Your task to perform on an android device: Open display settings Image 0: 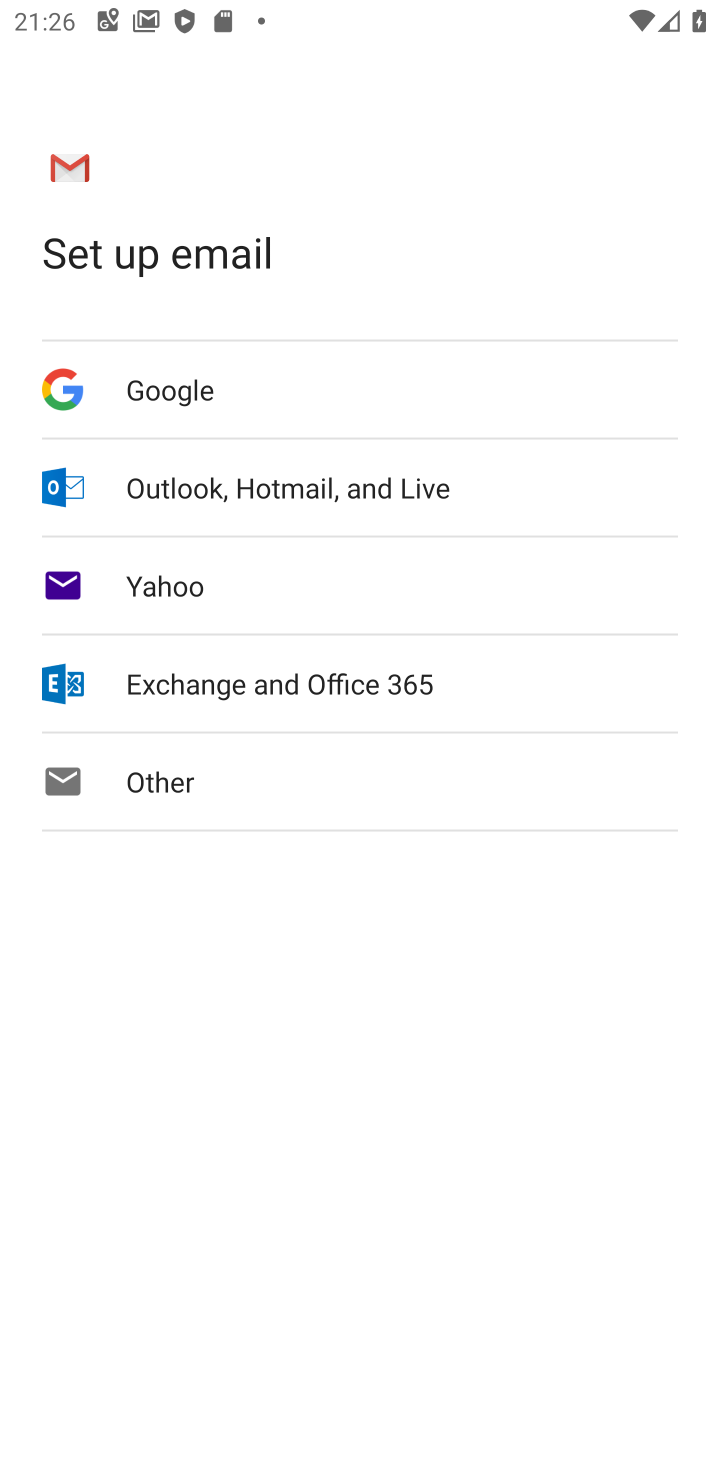
Step 0: press home button
Your task to perform on an android device: Open display settings Image 1: 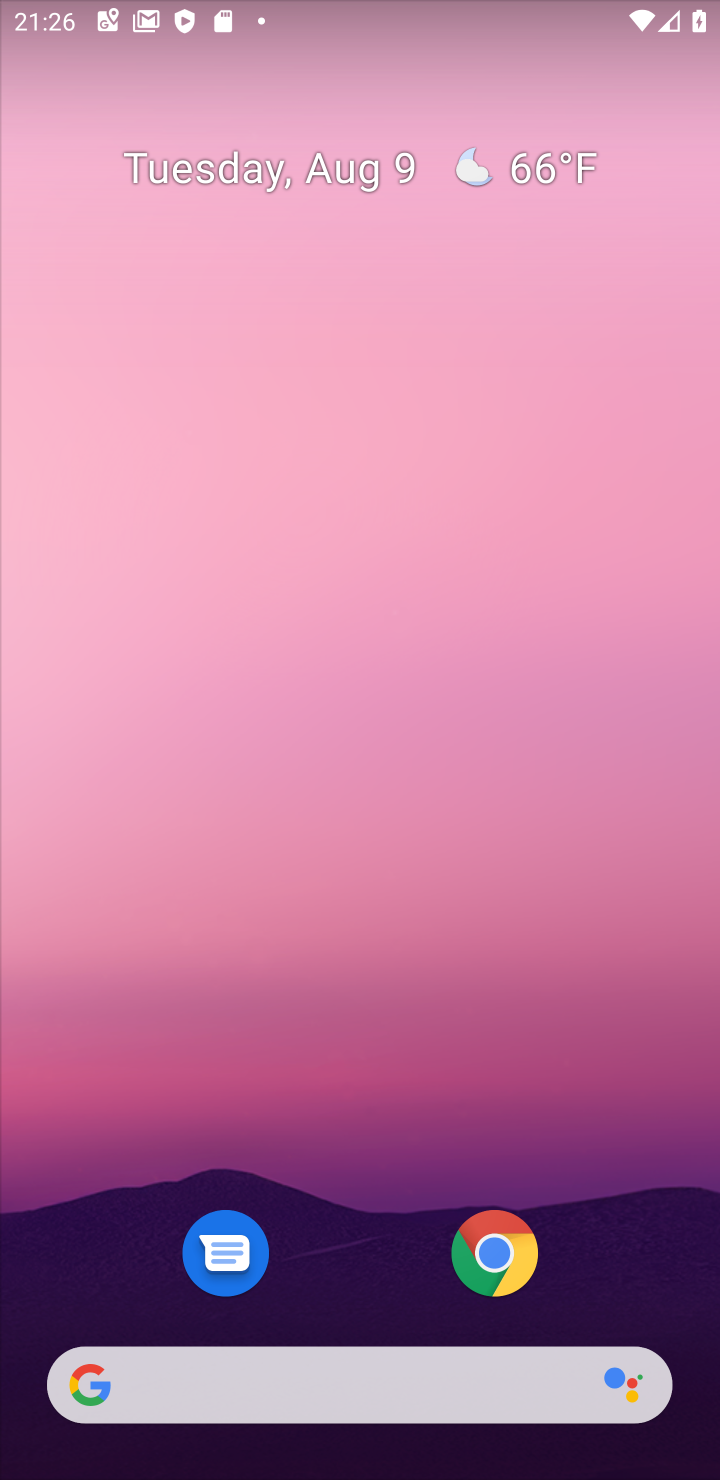
Step 1: drag from (321, 1204) to (438, 113)
Your task to perform on an android device: Open display settings Image 2: 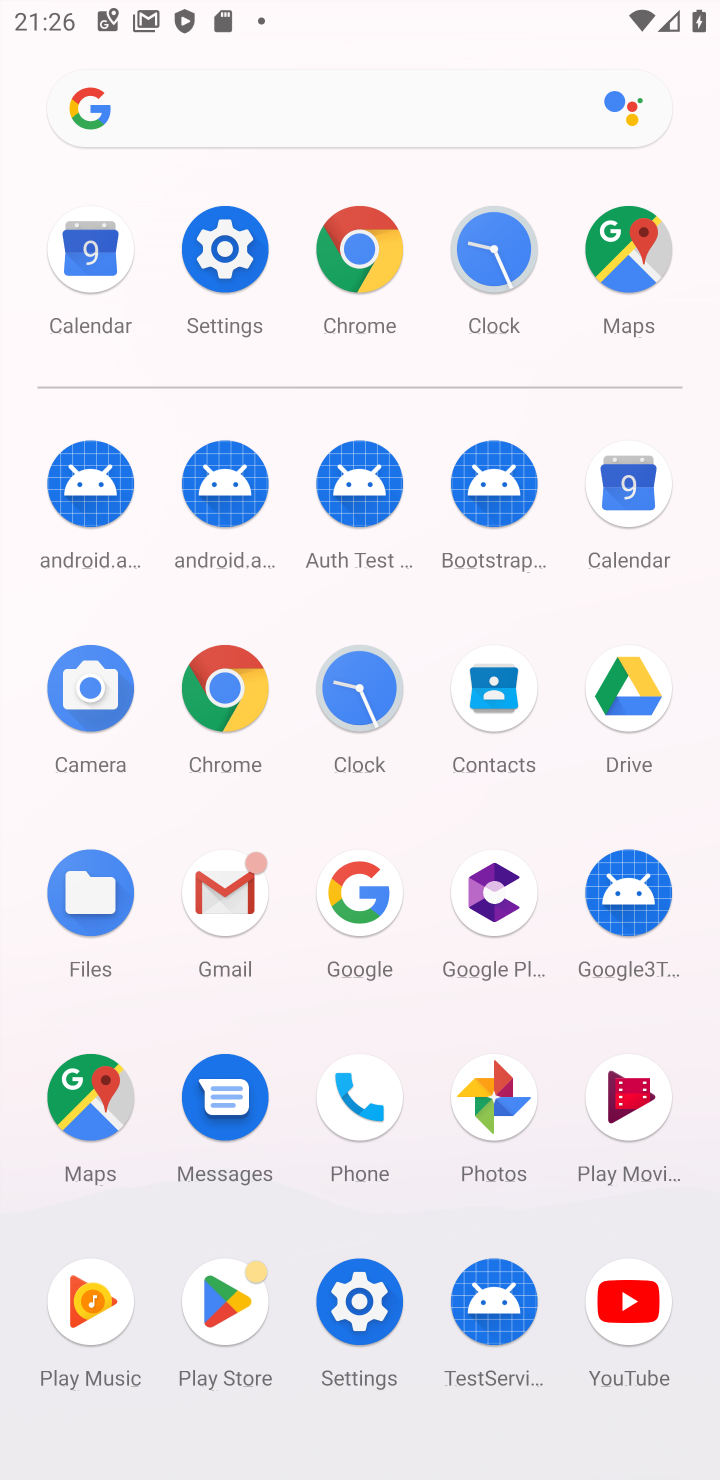
Step 2: click (356, 1318)
Your task to perform on an android device: Open display settings Image 3: 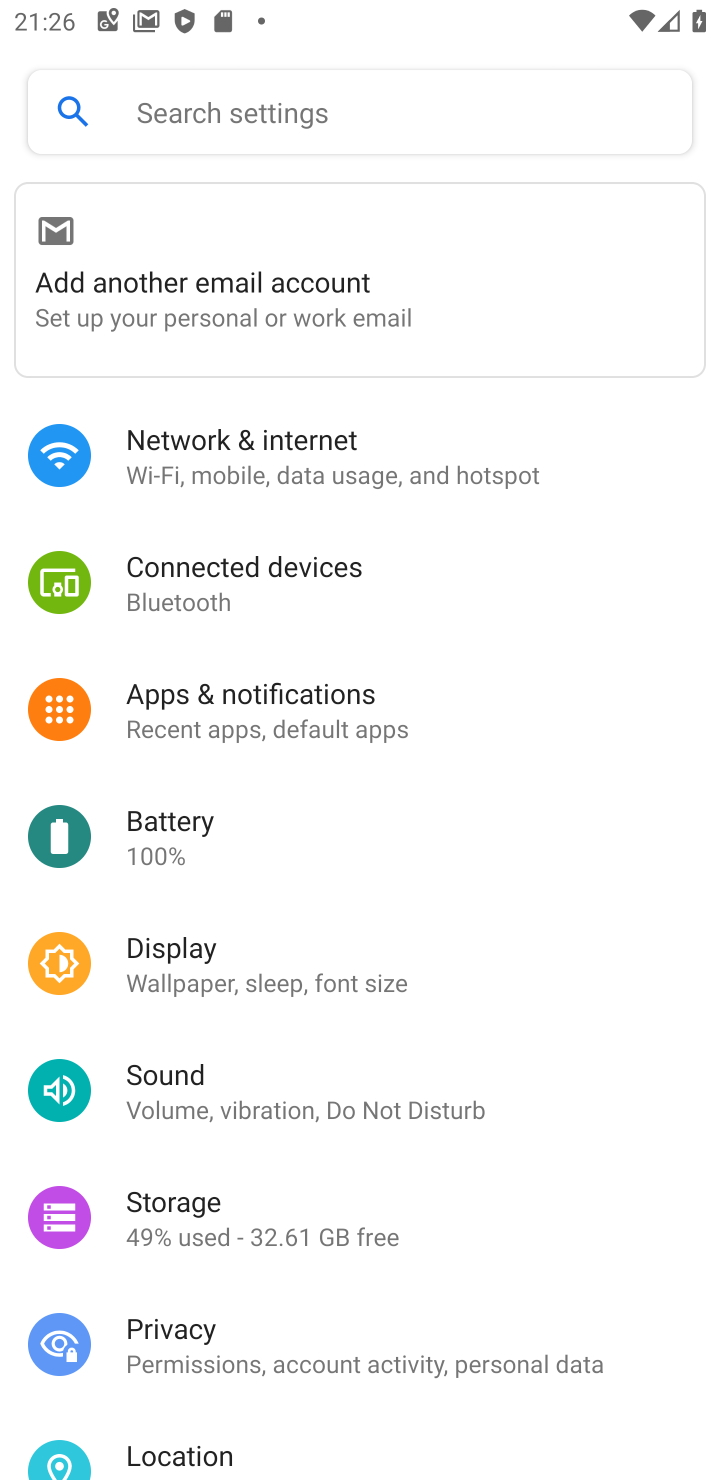
Step 3: click (209, 964)
Your task to perform on an android device: Open display settings Image 4: 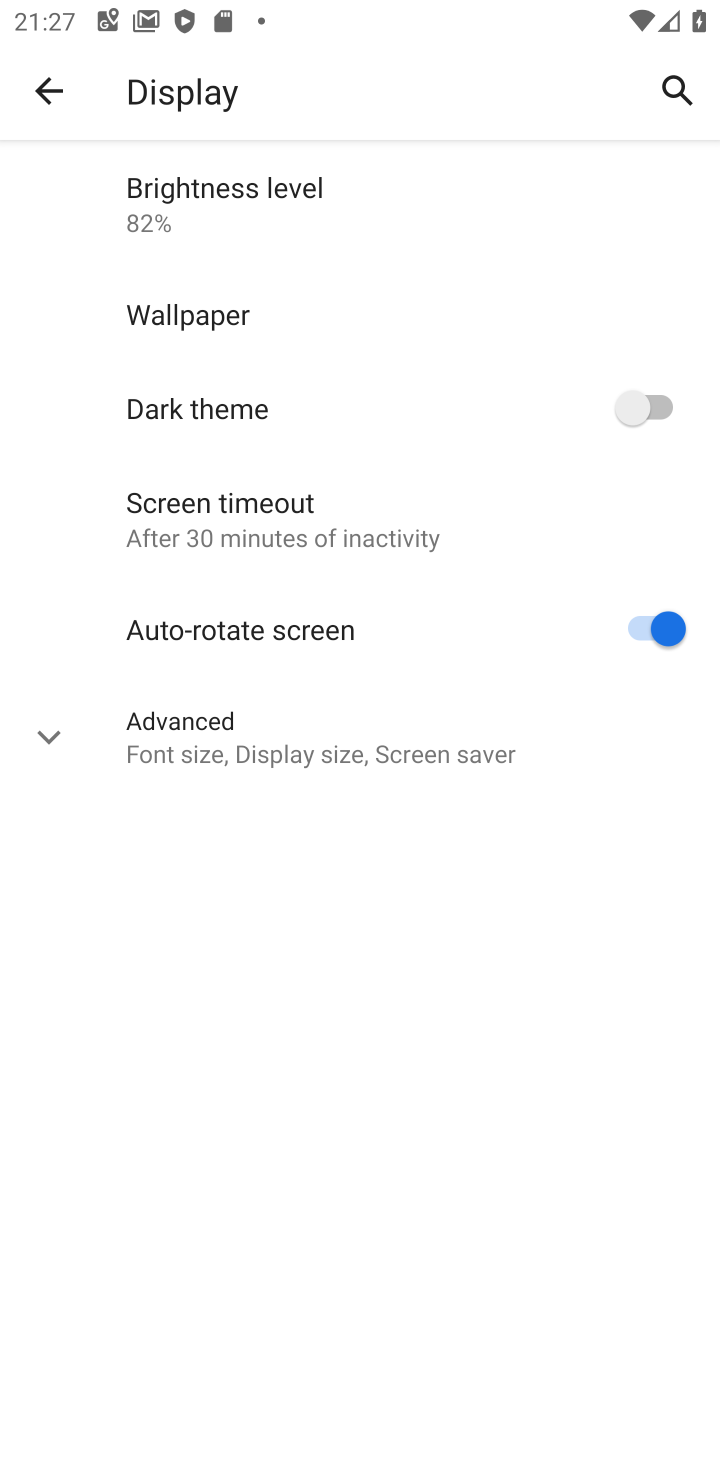
Step 4: task complete